Your task to perform on an android device: Set the phone to "Do not disturb". Image 0: 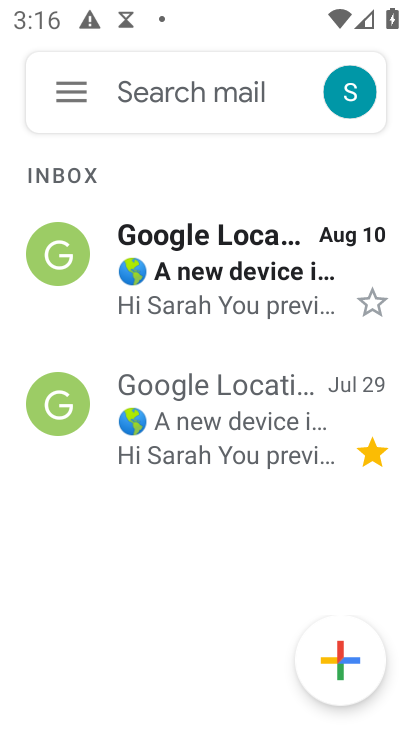
Step 0: press home button
Your task to perform on an android device: Set the phone to "Do not disturb". Image 1: 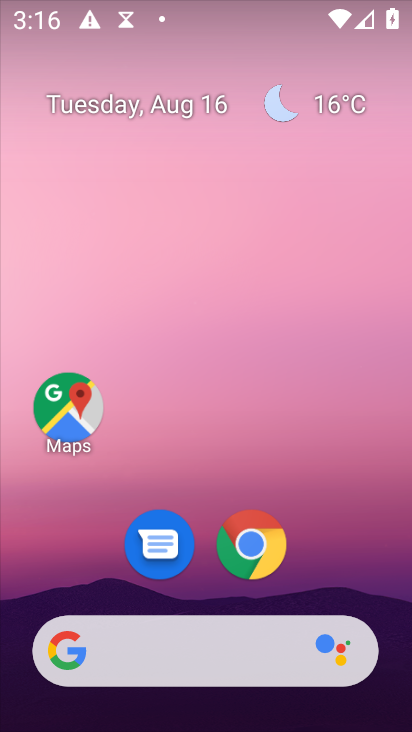
Step 1: drag from (184, 677) to (218, 9)
Your task to perform on an android device: Set the phone to "Do not disturb". Image 2: 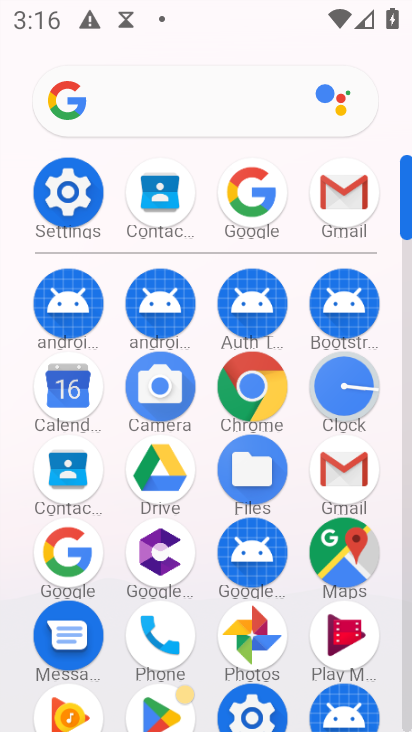
Step 2: click (68, 194)
Your task to perform on an android device: Set the phone to "Do not disturb". Image 3: 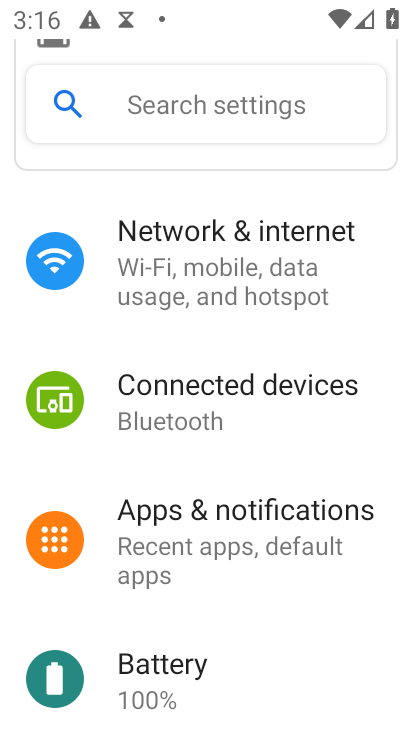
Step 3: drag from (201, 595) to (275, 464)
Your task to perform on an android device: Set the phone to "Do not disturb". Image 4: 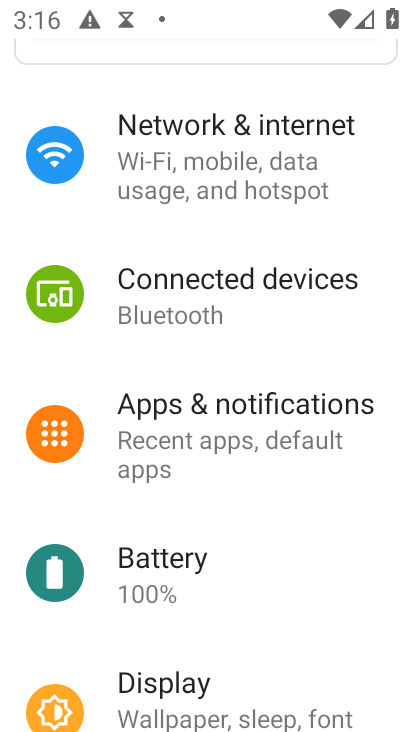
Step 4: drag from (182, 612) to (244, 460)
Your task to perform on an android device: Set the phone to "Do not disturb". Image 5: 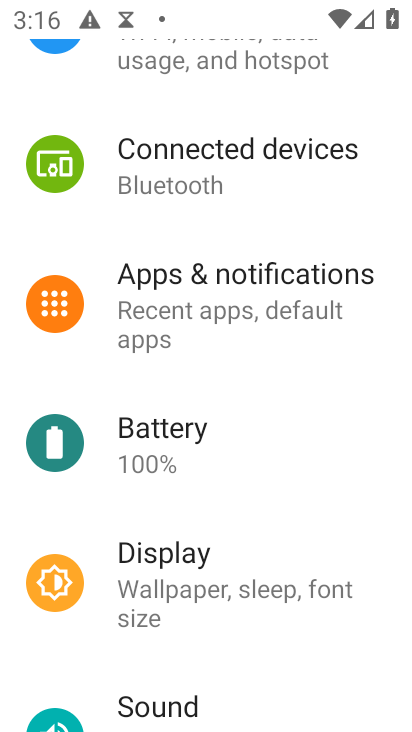
Step 5: drag from (210, 638) to (266, 494)
Your task to perform on an android device: Set the phone to "Do not disturb". Image 6: 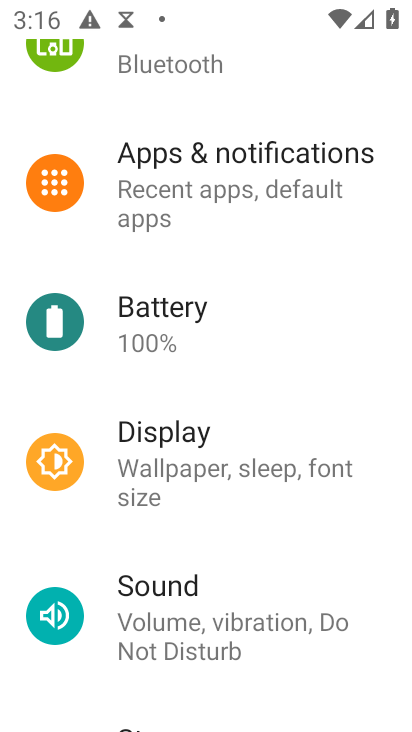
Step 6: drag from (230, 575) to (271, 400)
Your task to perform on an android device: Set the phone to "Do not disturb". Image 7: 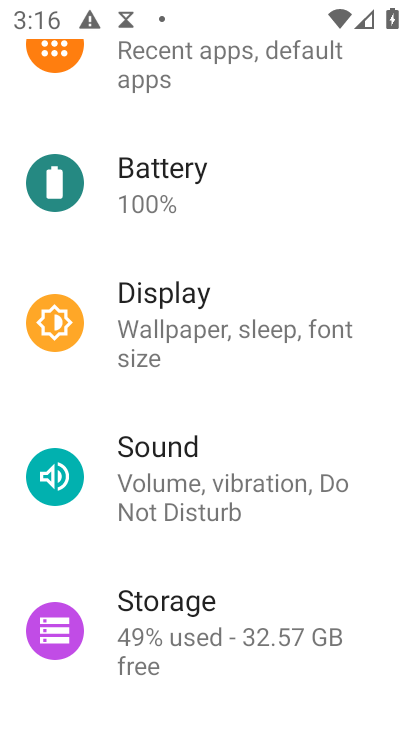
Step 7: click (198, 498)
Your task to perform on an android device: Set the phone to "Do not disturb". Image 8: 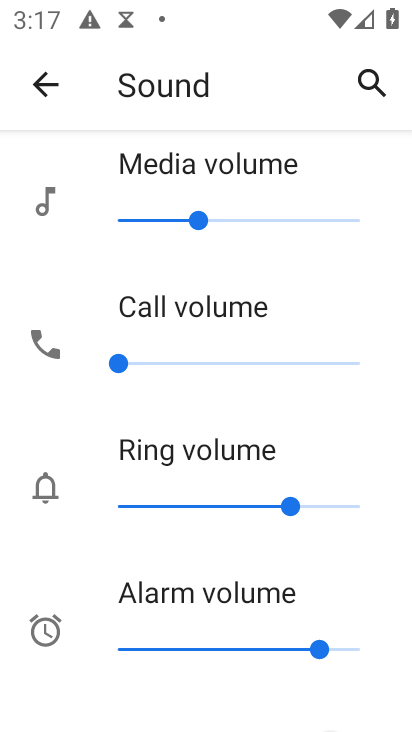
Step 8: drag from (194, 668) to (301, 423)
Your task to perform on an android device: Set the phone to "Do not disturb". Image 9: 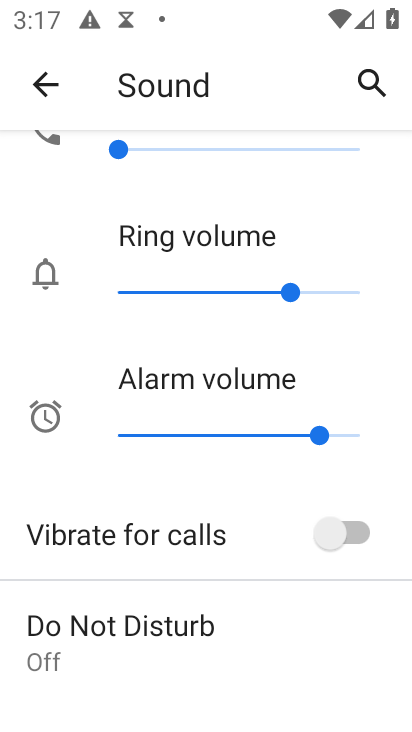
Step 9: drag from (175, 669) to (262, 460)
Your task to perform on an android device: Set the phone to "Do not disturb". Image 10: 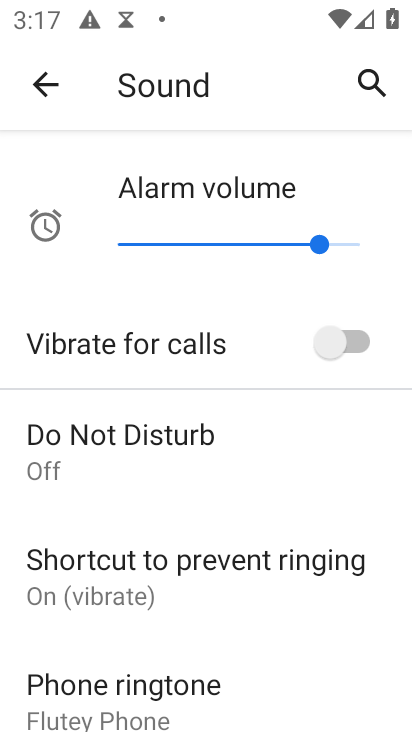
Step 10: click (144, 441)
Your task to perform on an android device: Set the phone to "Do not disturb". Image 11: 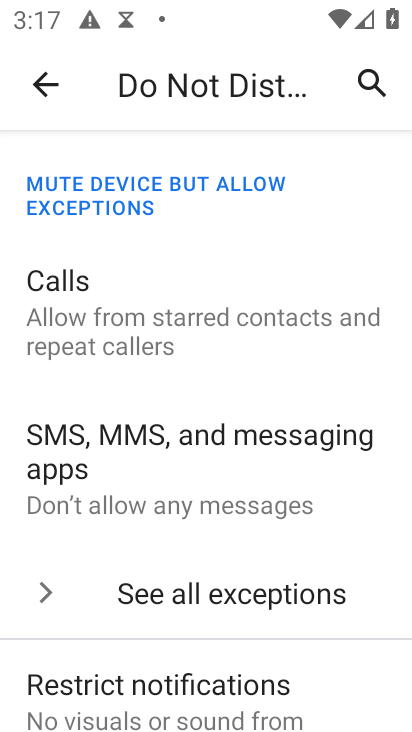
Step 11: drag from (159, 653) to (248, 492)
Your task to perform on an android device: Set the phone to "Do not disturb". Image 12: 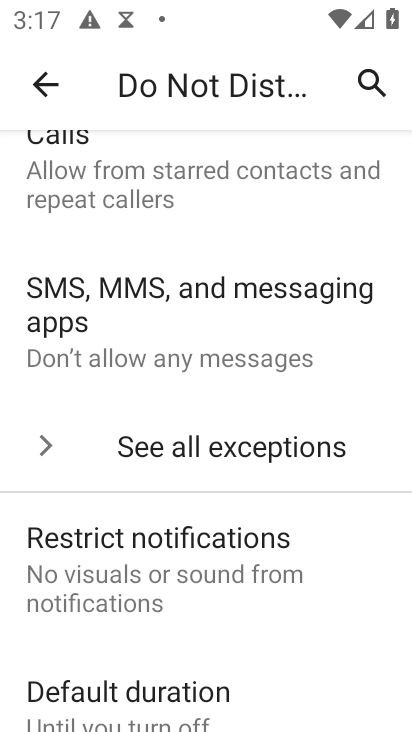
Step 12: drag from (180, 670) to (241, 436)
Your task to perform on an android device: Set the phone to "Do not disturb". Image 13: 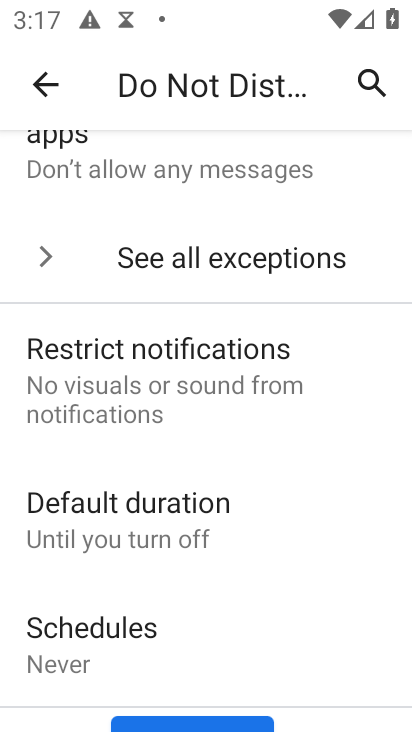
Step 13: drag from (184, 681) to (240, 451)
Your task to perform on an android device: Set the phone to "Do not disturb". Image 14: 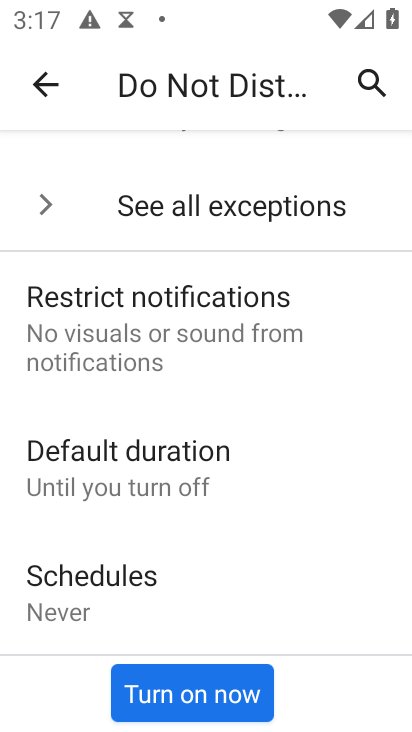
Step 14: click (191, 700)
Your task to perform on an android device: Set the phone to "Do not disturb". Image 15: 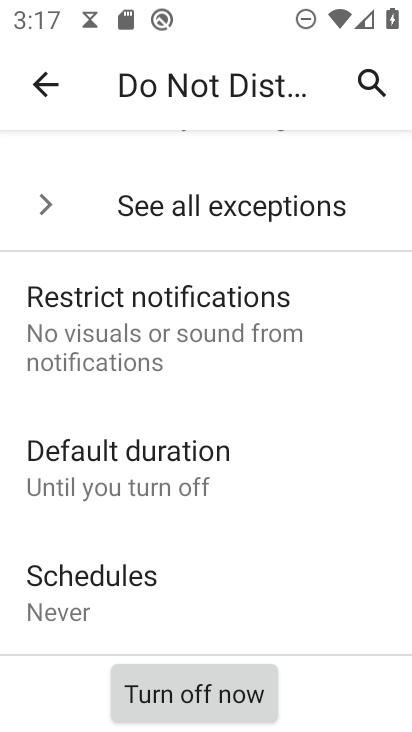
Step 15: task complete